Your task to perform on an android device: Do I have any events tomorrow? Image 0: 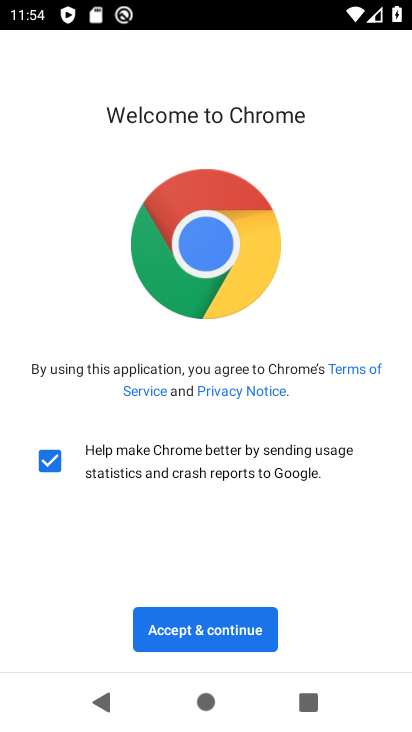
Step 0: press home button
Your task to perform on an android device: Do I have any events tomorrow? Image 1: 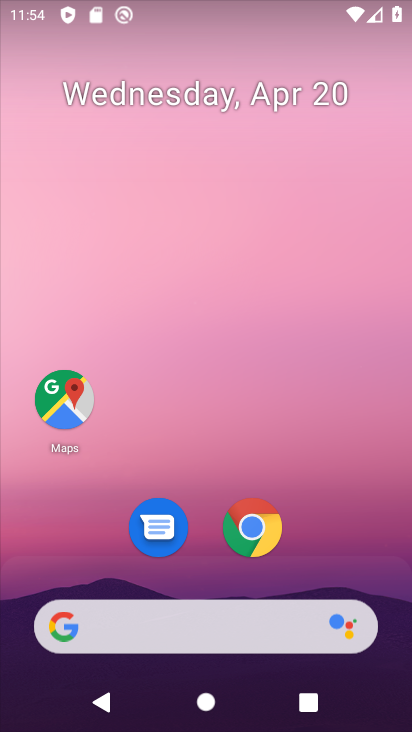
Step 1: drag from (336, 590) to (336, 183)
Your task to perform on an android device: Do I have any events tomorrow? Image 2: 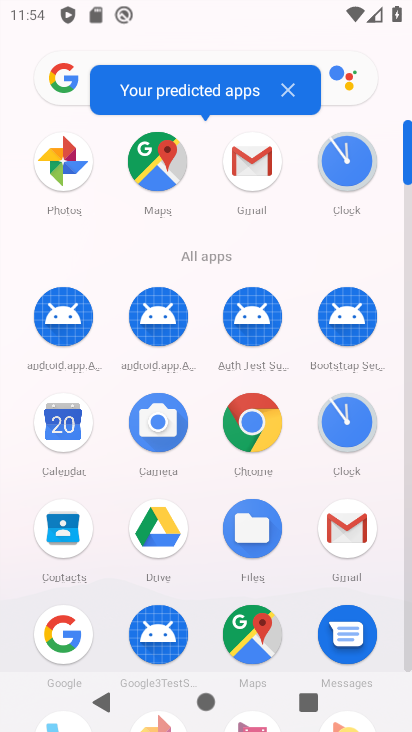
Step 2: click (62, 415)
Your task to perform on an android device: Do I have any events tomorrow? Image 3: 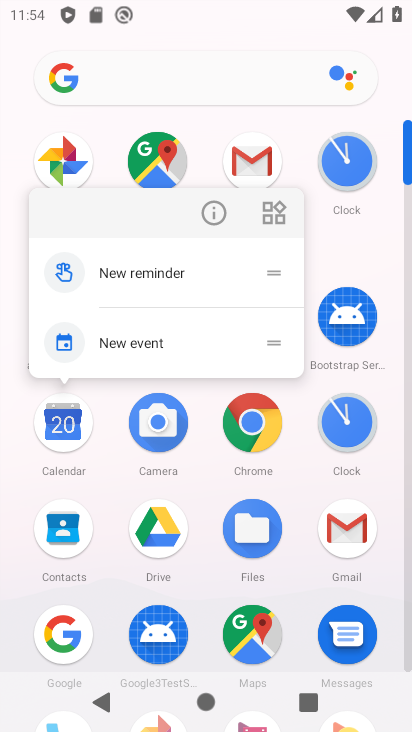
Step 3: click (62, 415)
Your task to perform on an android device: Do I have any events tomorrow? Image 4: 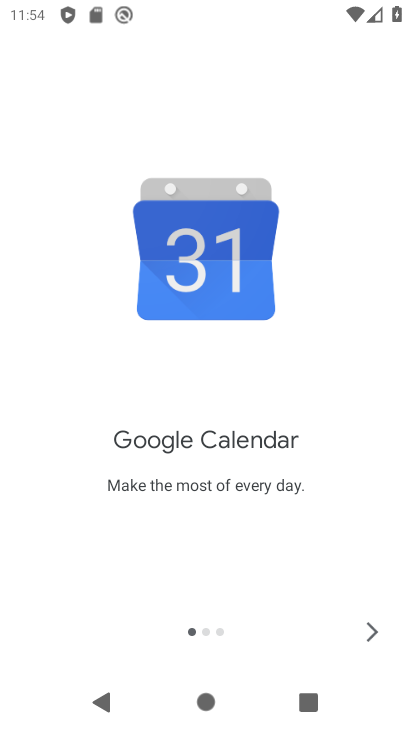
Step 4: click (378, 633)
Your task to perform on an android device: Do I have any events tomorrow? Image 5: 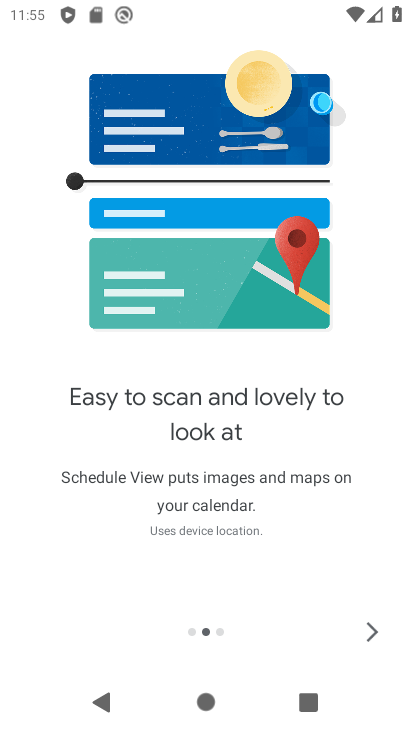
Step 5: click (378, 633)
Your task to perform on an android device: Do I have any events tomorrow? Image 6: 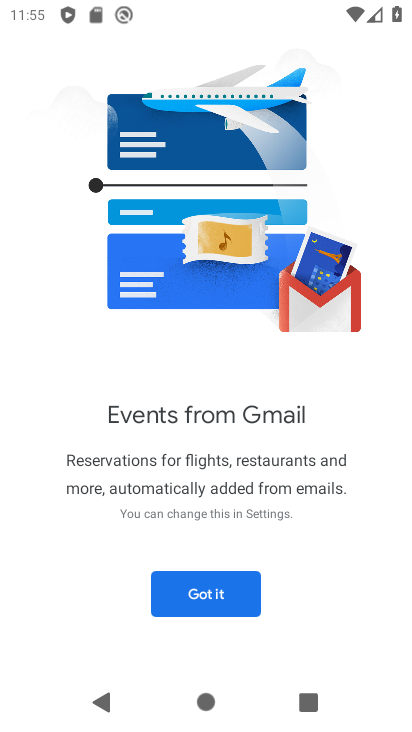
Step 6: click (222, 596)
Your task to perform on an android device: Do I have any events tomorrow? Image 7: 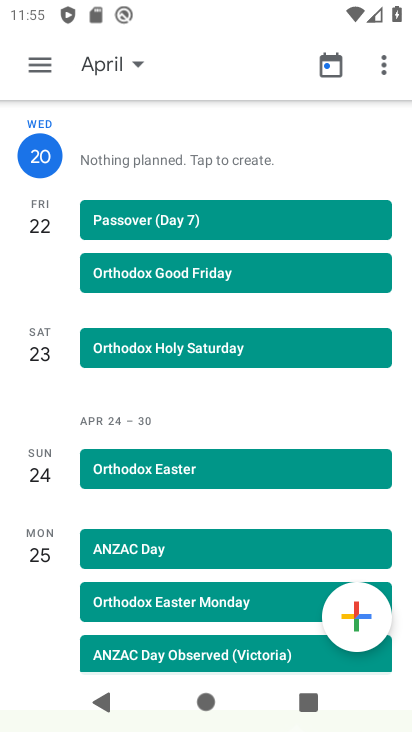
Step 7: click (93, 68)
Your task to perform on an android device: Do I have any events tomorrow? Image 8: 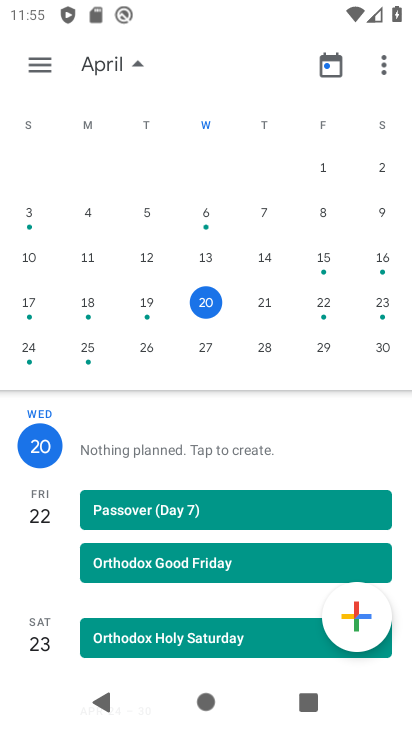
Step 8: click (326, 304)
Your task to perform on an android device: Do I have any events tomorrow? Image 9: 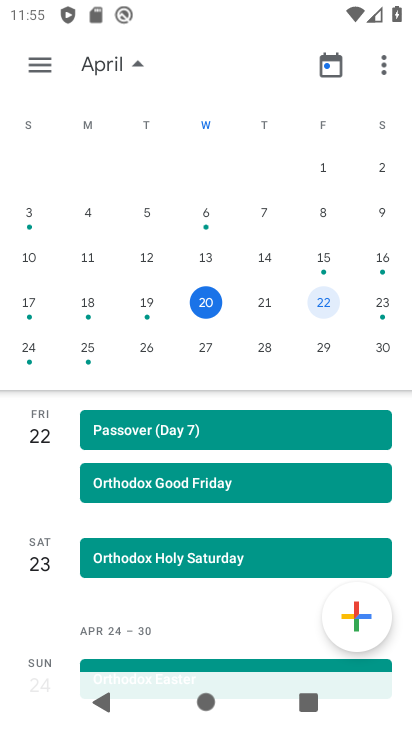
Step 9: task complete